Your task to perform on an android device: Open location settings Image 0: 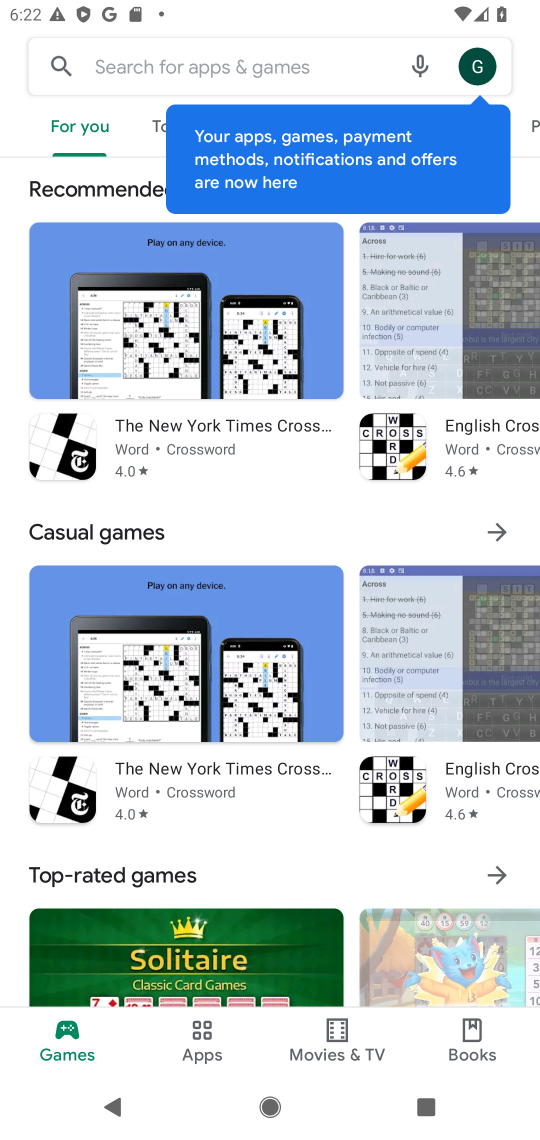
Step 0: press home button
Your task to perform on an android device: Open location settings Image 1: 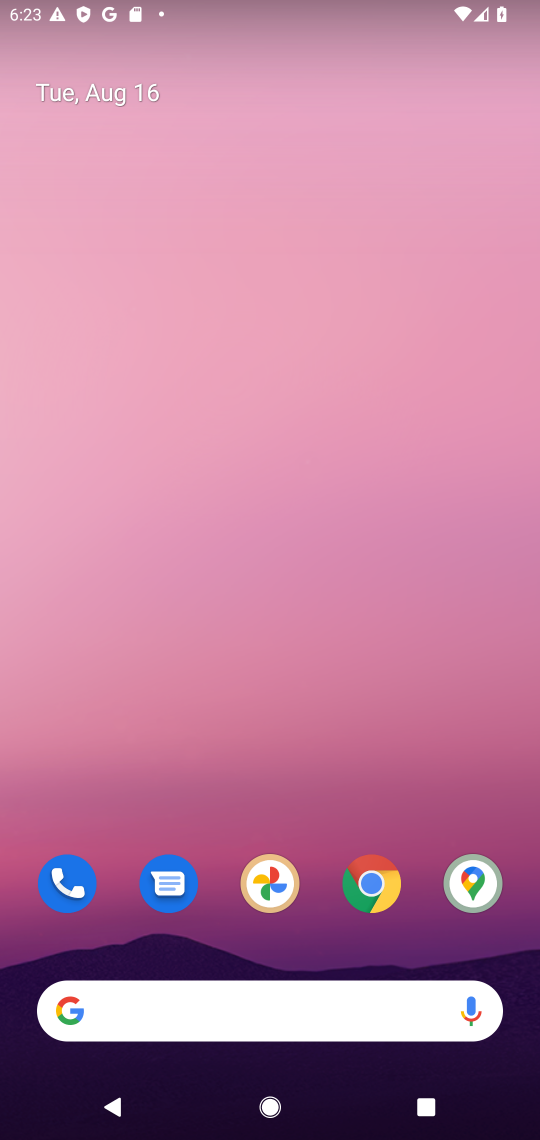
Step 1: drag from (233, 1015) to (291, 189)
Your task to perform on an android device: Open location settings Image 2: 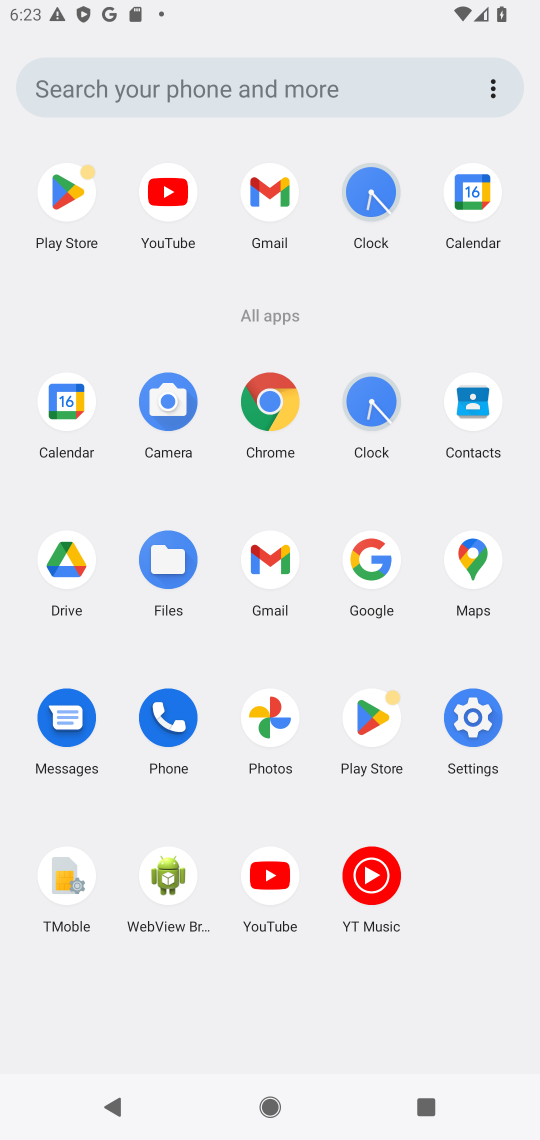
Step 2: click (471, 721)
Your task to perform on an android device: Open location settings Image 3: 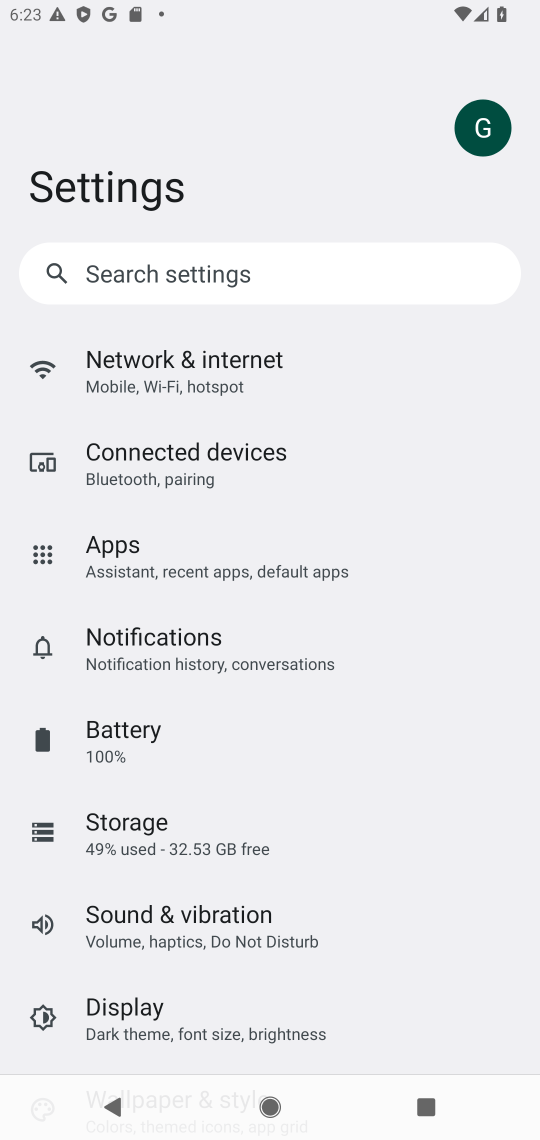
Step 3: drag from (244, 752) to (299, 600)
Your task to perform on an android device: Open location settings Image 4: 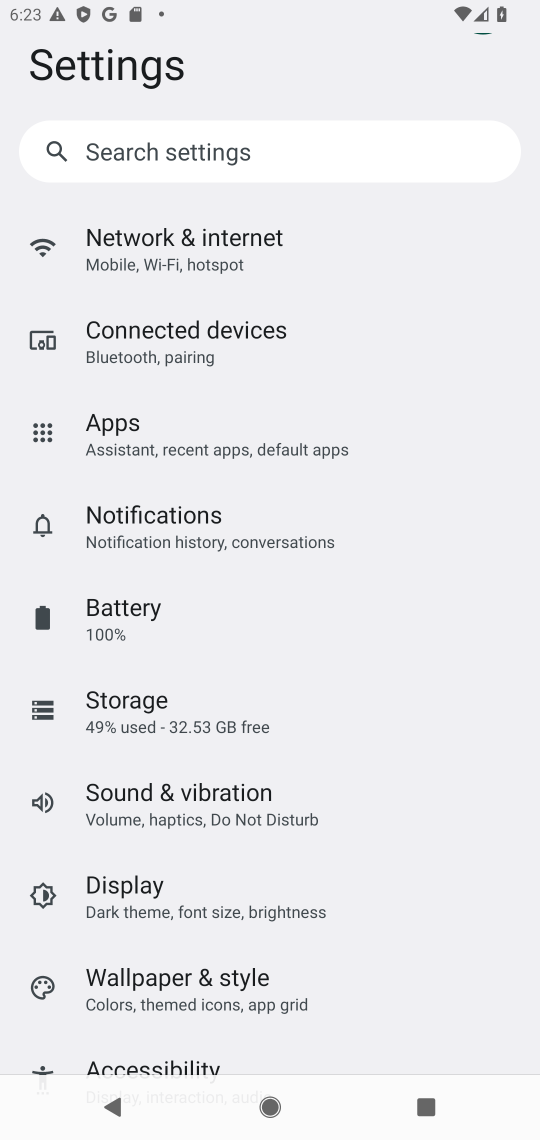
Step 4: drag from (177, 779) to (286, 636)
Your task to perform on an android device: Open location settings Image 5: 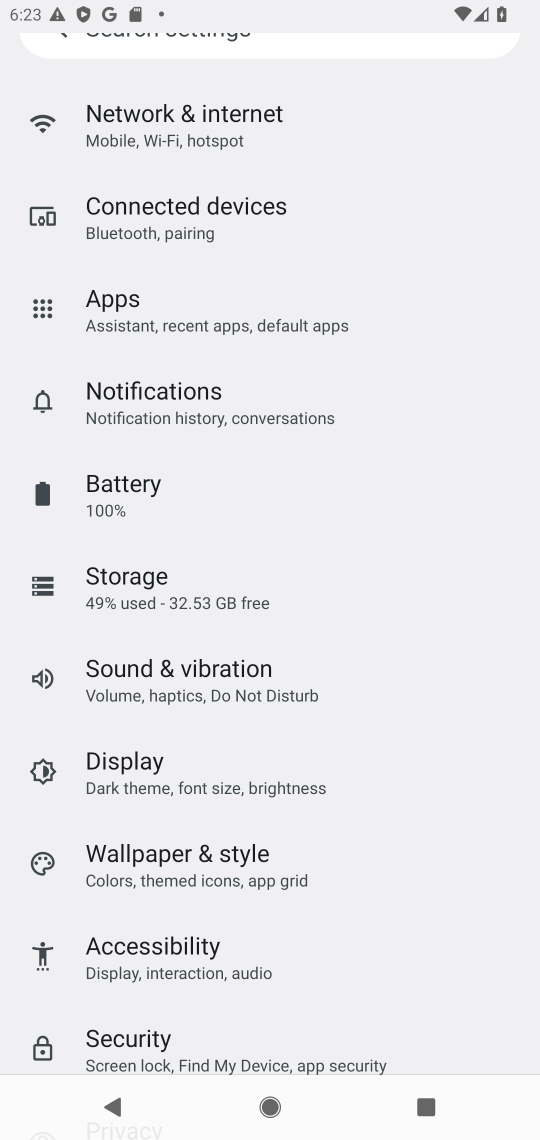
Step 5: drag from (199, 891) to (267, 674)
Your task to perform on an android device: Open location settings Image 6: 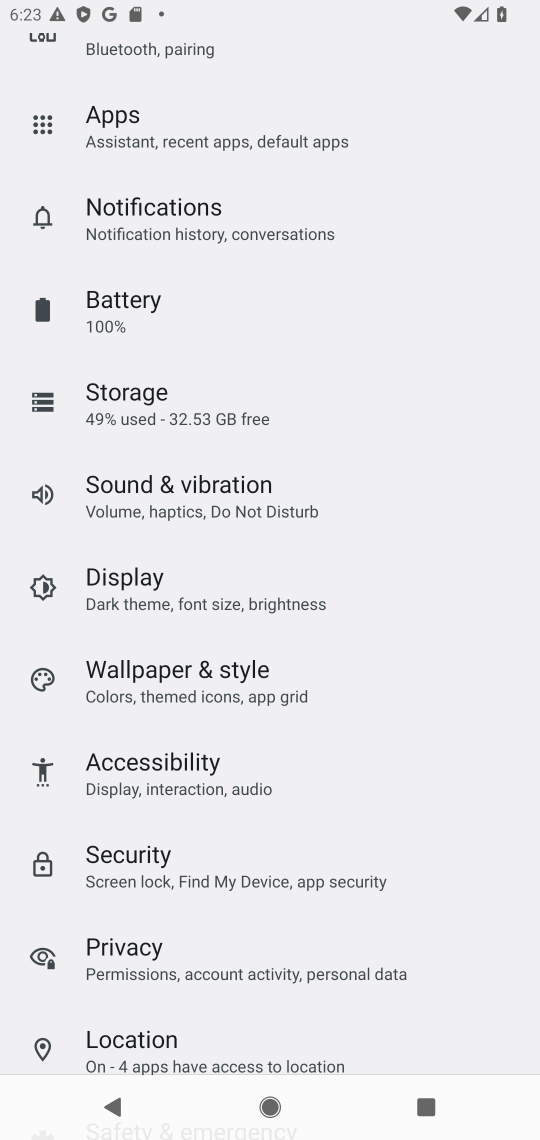
Step 6: click (153, 1051)
Your task to perform on an android device: Open location settings Image 7: 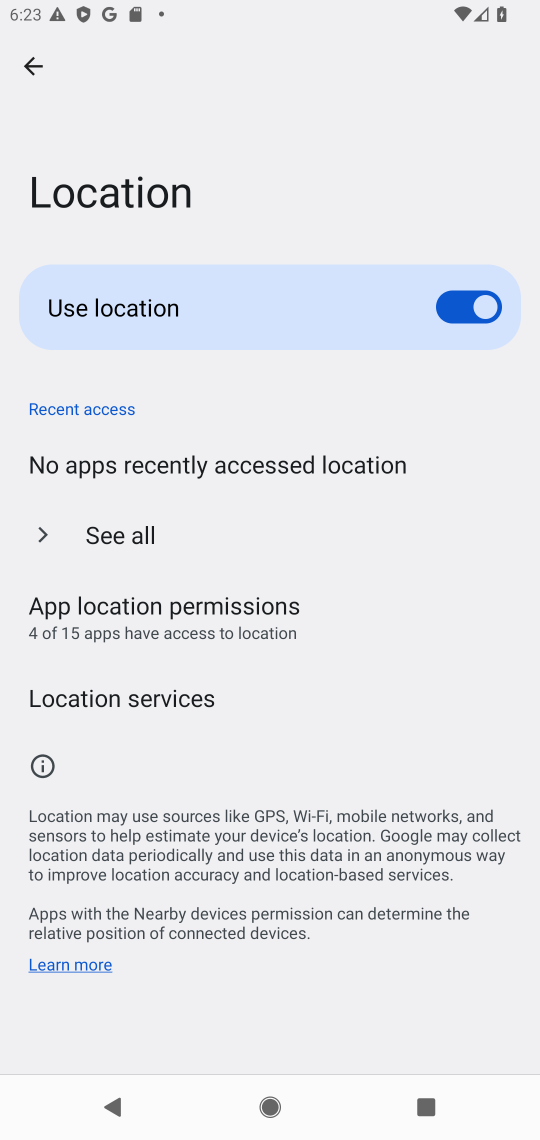
Step 7: task complete